Your task to perform on an android device: Go to network settings Image 0: 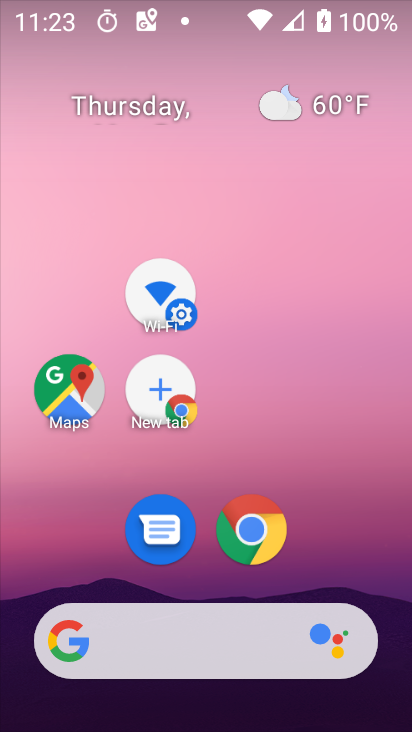
Step 0: drag from (334, 512) to (167, 64)
Your task to perform on an android device: Go to network settings Image 1: 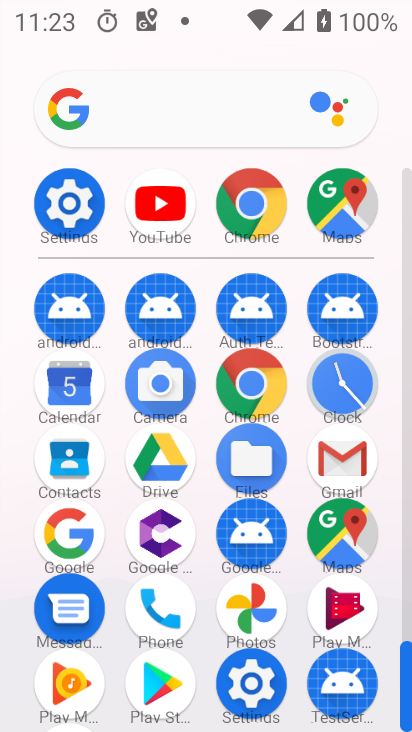
Step 1: click (68, 203)
Your task to perform on an android device: Go to network settings Image 2: 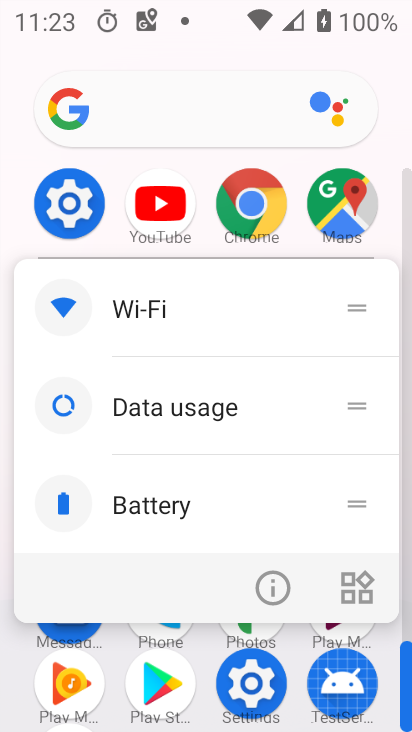
Step 2: click (77, 202)
Your task to perform on an android device: Go to network settings Image 3: 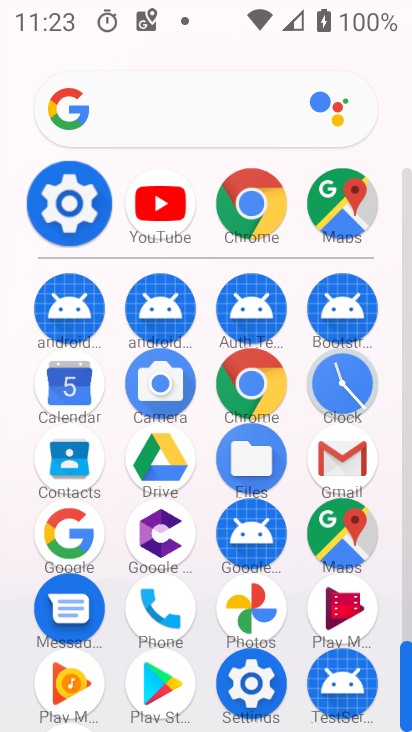
Step 3: click (78, 202)
Your task to perform on an android device: Go to network settings Image 4: 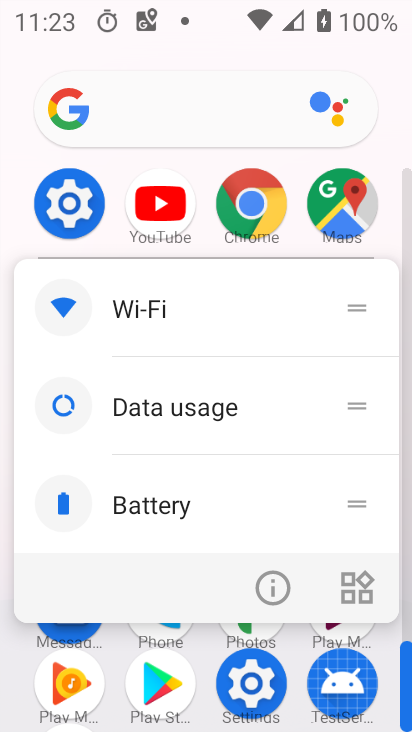
Step 4: click (78, 202)
Your task to perform on an android device: Go to network settings Image 5: 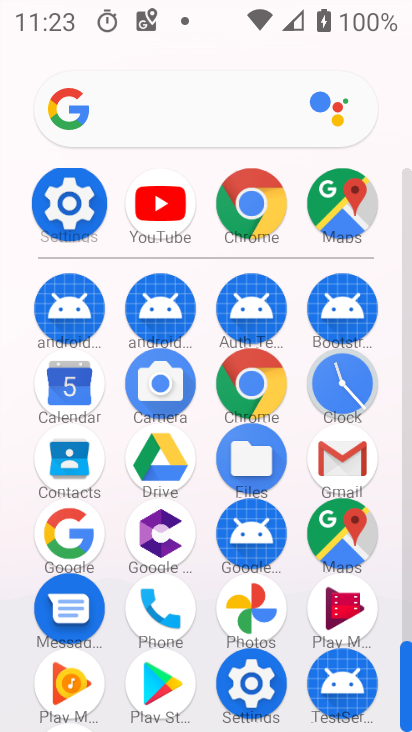
Step 5: click (78, 202)
Your task to perform on an android device: Go to network settings Image 6: 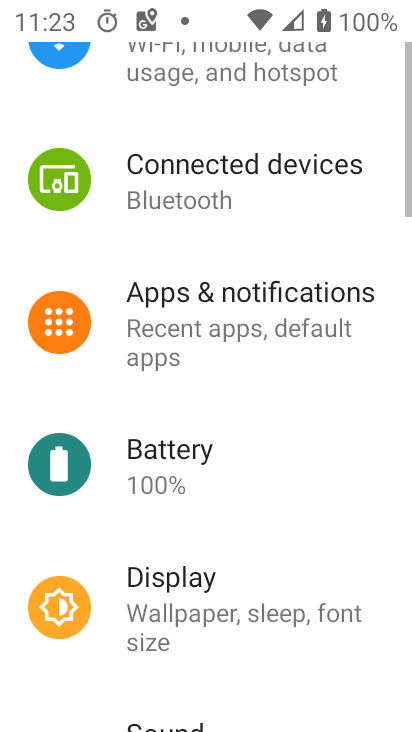
Step 6: click (78, 202)
Your task to perform on an android device: Go to network settings Image 7: 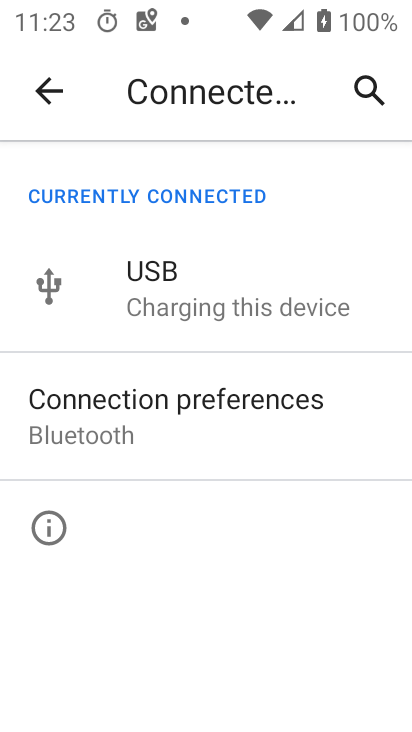
Step 7: click (37, 82)
Your task to perform on an android device: Go to network settings Image 8: 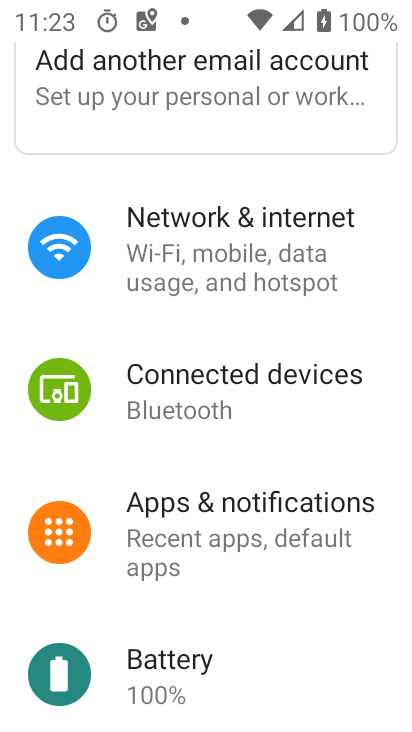
Step 8: click (235, 230)
Your task to perform on an android device: Go to network settings Image 9: 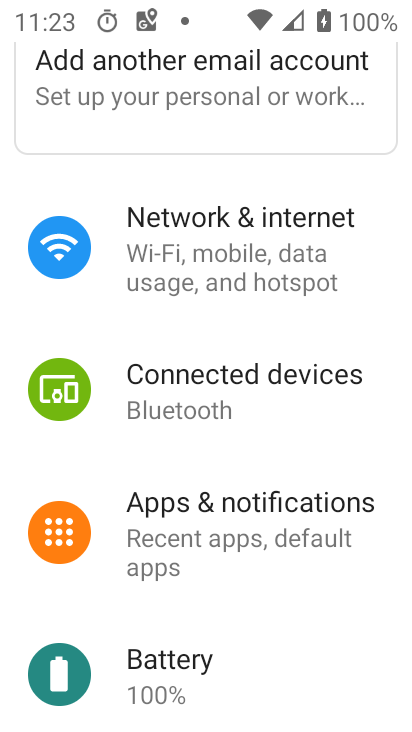
Step 9: click (235, 230)
Your task to perform on an android device: Go to network settings Image 10: 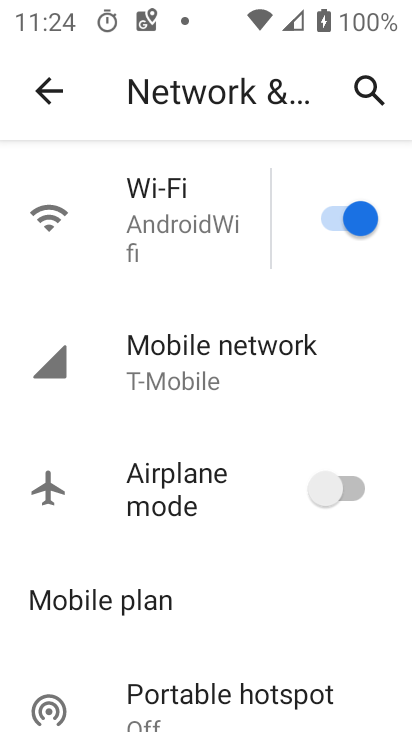
Step 10: task complete